Your task to perform on an android device: toggle airplane mode Image 0: 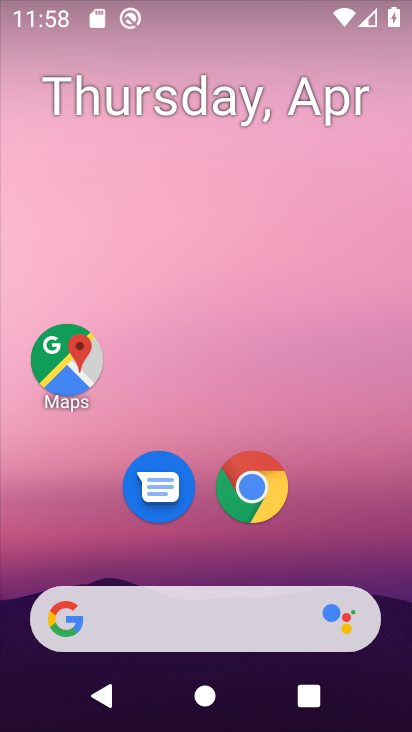
Step 0: drag from (310, 591) to (329, 199)
Your task to perform on an android device: toggle airplane mode Image 1: 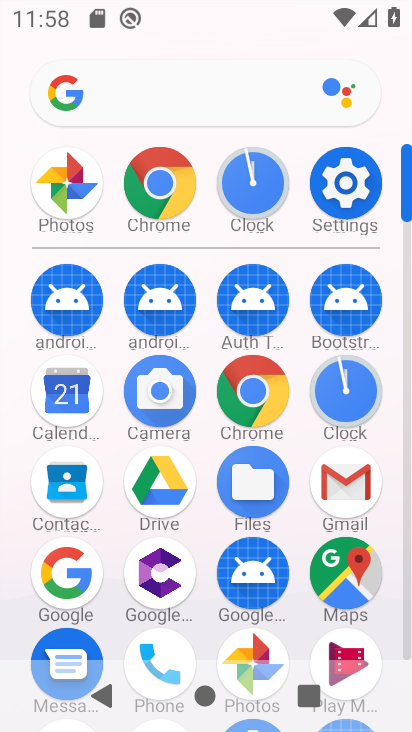
Step 1: click (342, 186)
Your task to perform on an android device: toggle airplane mode Image 2: 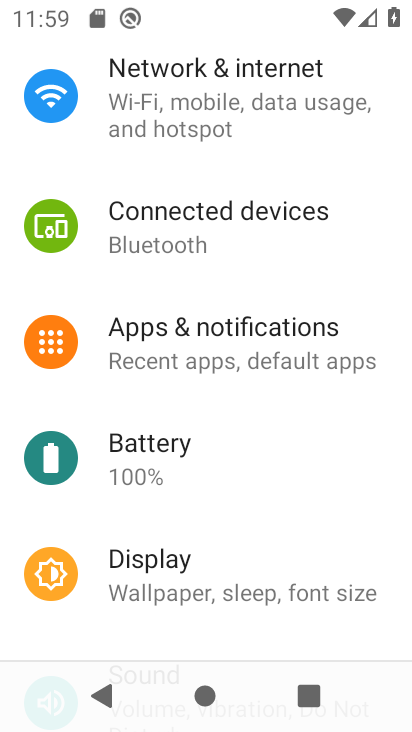
Step 2: drag from (194, 134) to (196, 593)
Your task to perform on an android device: toggle airplane mode Image 3: 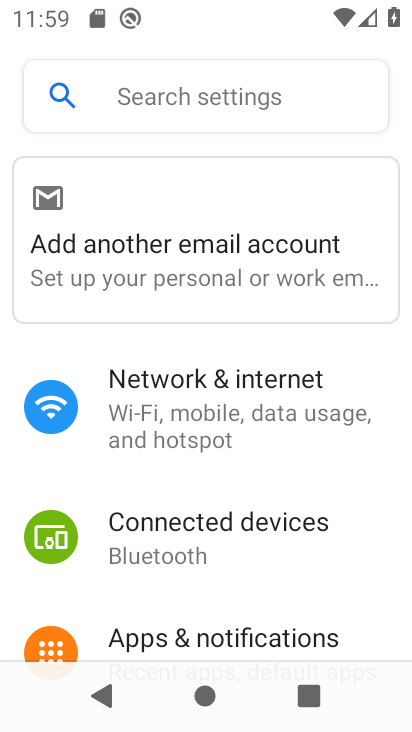
Step 3: click (214, 402)
Your task to perform on an android device: toggle airplane mode Image 4: 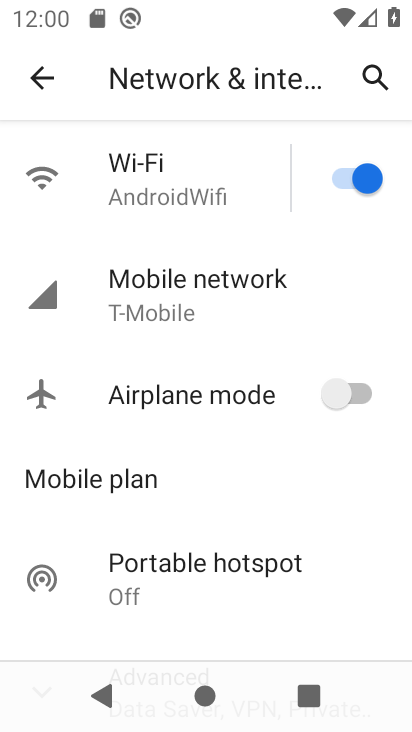
Step 4: click (357, 382)
Your task to perform on an android device: toggle airplane mode Image 5: 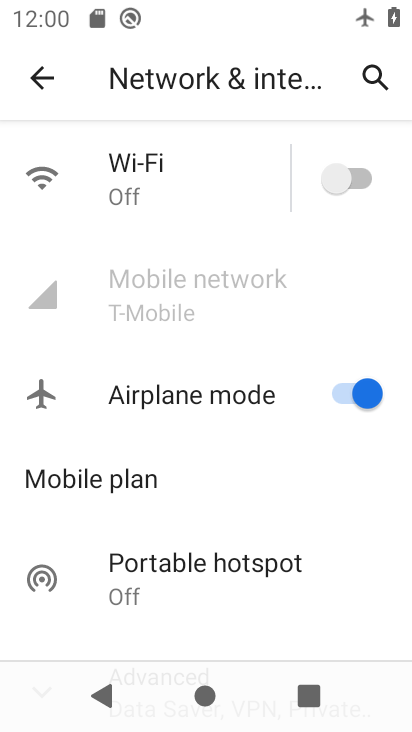
Step 5: task complete